Your task to perform on an android device: Clear all items from cart on amazon. Image 0: 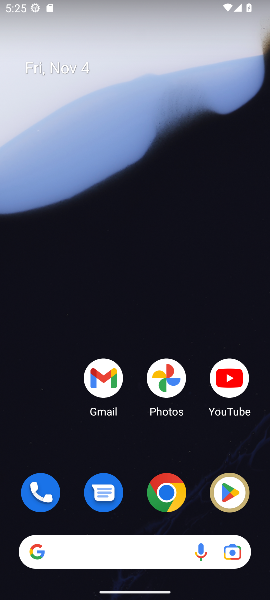
Step 0: drag from (139, 447) to (137, 11)
Your task to perform on an android device: Clear all items from cart on amazon. Image 1: 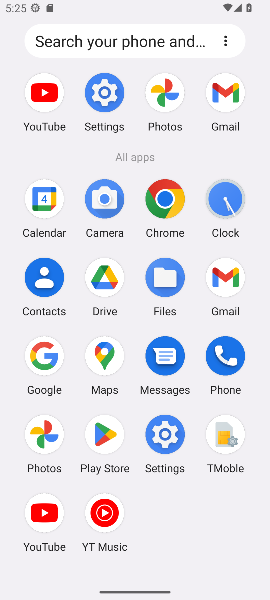
Step 1: click (164, 197)
Your task to perform on an android device: Clear all items from cart on amazon. Image 2: 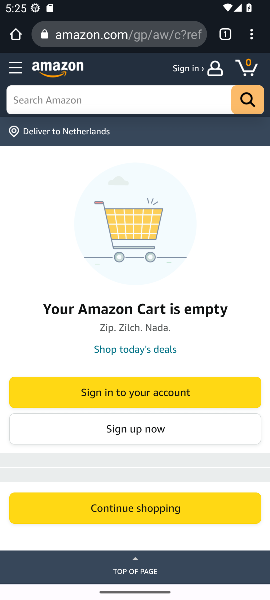
Step 2: click (113, 29)
Your task to perform on an android device: Clear all items from cart on amazon. Image 3: 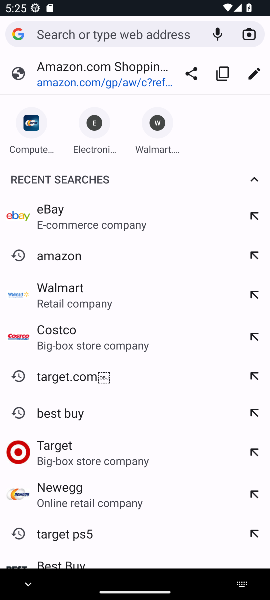
Step 3: type "amazon.com"
Your task to perform on an android device: Clear all items from cart on amazon. Image 4: 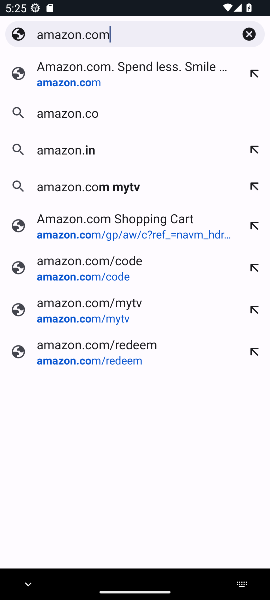
Step 4: press enter
Your task to perform on an android device: Clear all items from cart on amazon. Image 5: 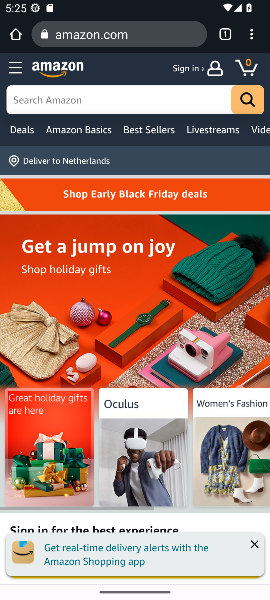
Step 5: click (242, 64)
Your task to perform on an android device: Clear all items from cart on amazon. Image 6: 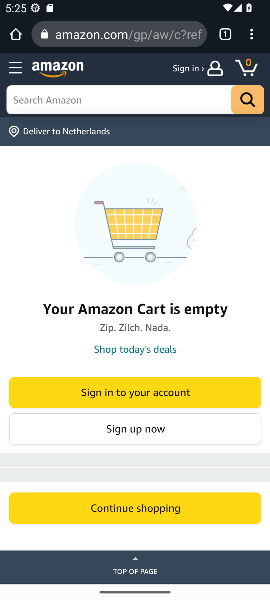
Step 6: task complete